Your task to perform on an android device: turn off translation in the chrome app Image 0: 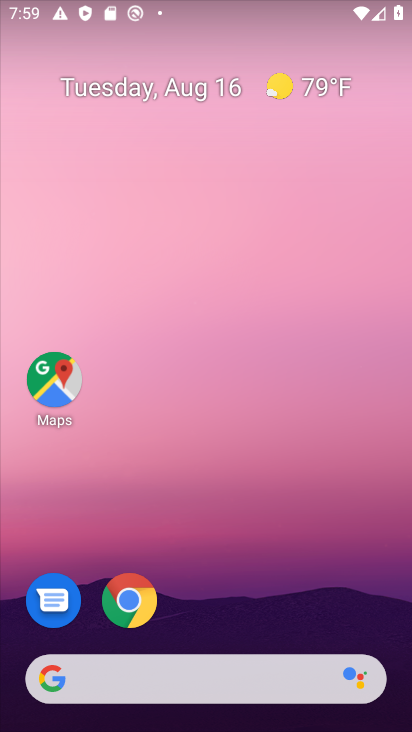
Step 0: drag from (289, 646) to (401, 255)
Your task to perform on an android device: turn off translation in the chrome app Image 1: 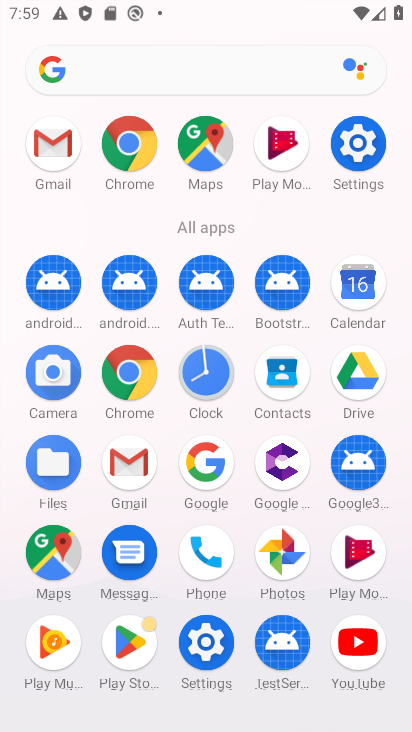
Step 1: click (127, 154)
Your task to perform on an android device: turn off translation in the chrome app Image 2: 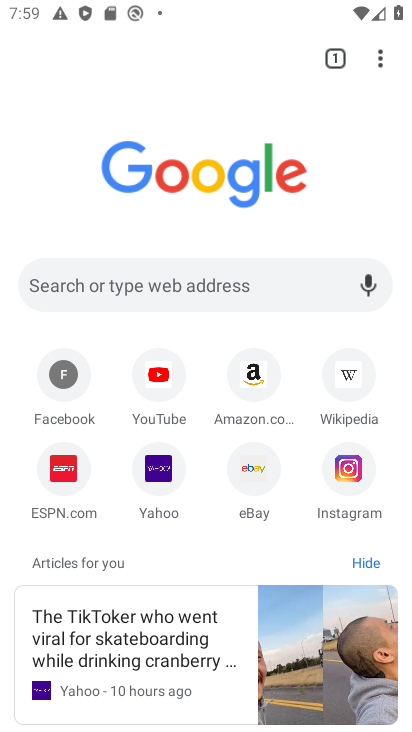
Step 2: drag from (375, 62) to (212, 514)
Your task to perform on an android device: turn off translation in the chrome app Image 3: 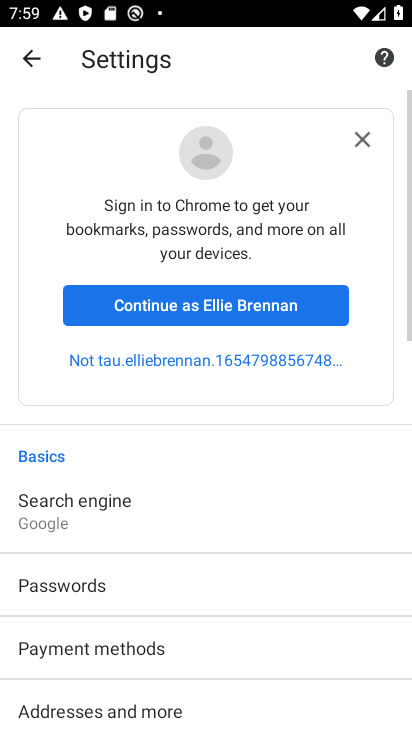
Step 3: drag from (195, 655) to (335, 237)
Your task to perform on an android device: turn off translation in the chrome app Image 4: 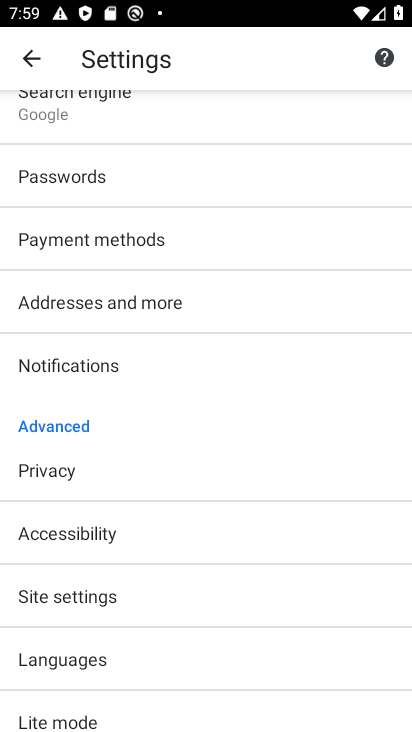
Step 4: click (139, 667)
Your task to perform on an android device: turn off translation in the chrome app Image 5: 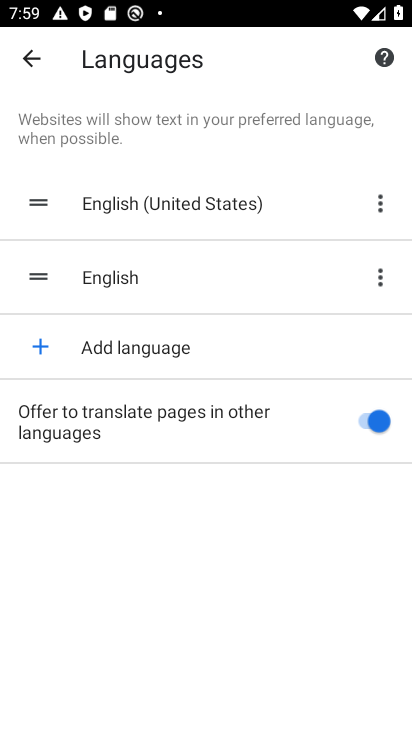
Step 5: click (373, 402)
Your task to perform on an android device: turn off translation in the chrome app Image 6: 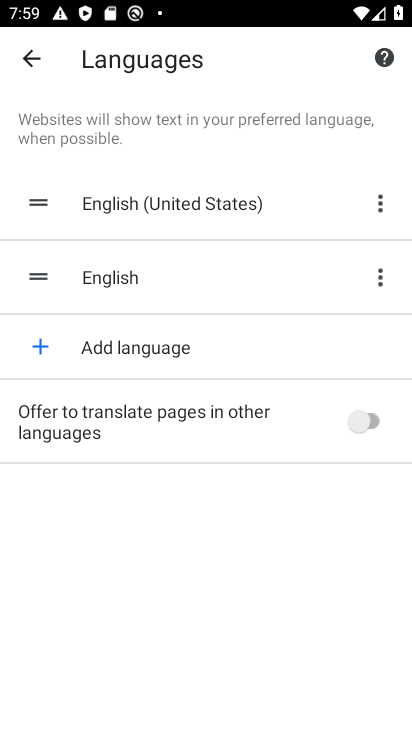
Step 6: task complete